Your task to perform on an android device: set the stopwatch Image 0: 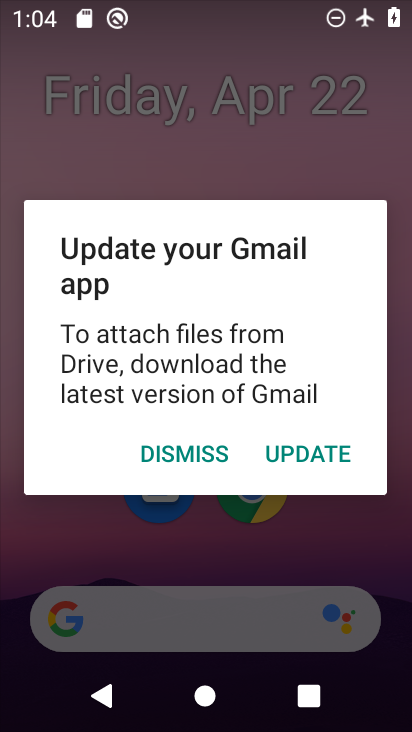
Step 0: press home button
Your task to perform on an android device: set the stopwatch Image 1: 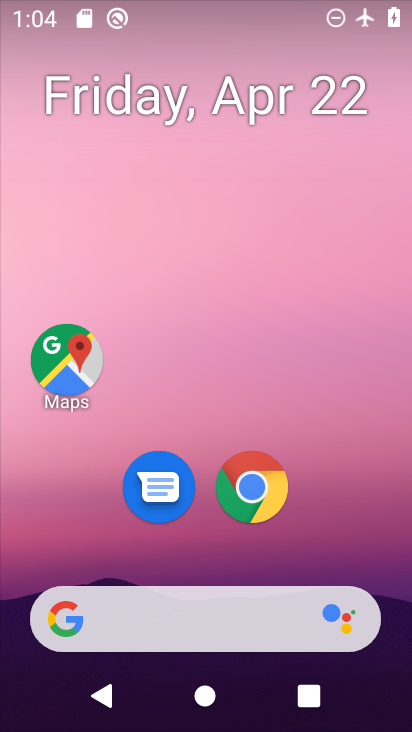
Step 1: drag from (239, 283) to (242, 198)
Your task to perform on an android device: set the stopwatch Image 2: 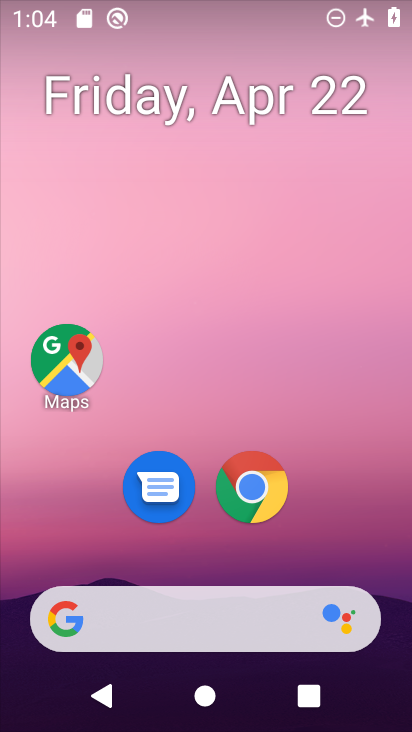
Step 2: drag from (217, 509) to (241, 237)
Your task to perform on an android device: set the stopwatch Image 3: 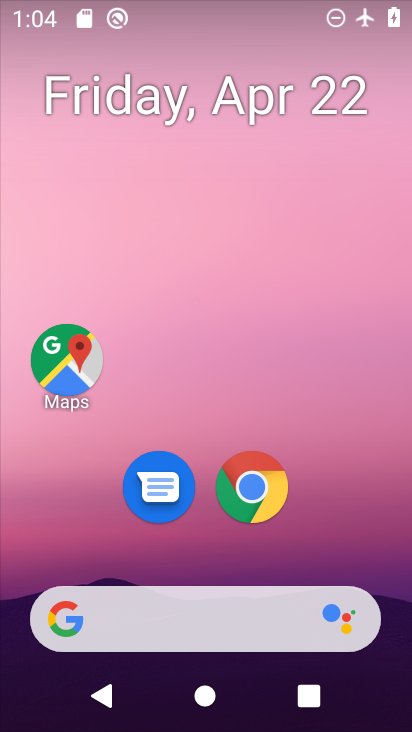
Step 3: drag from (244, 597) to (238, 275)
Your task to perform on an android device: set the stopwatch Image 4: 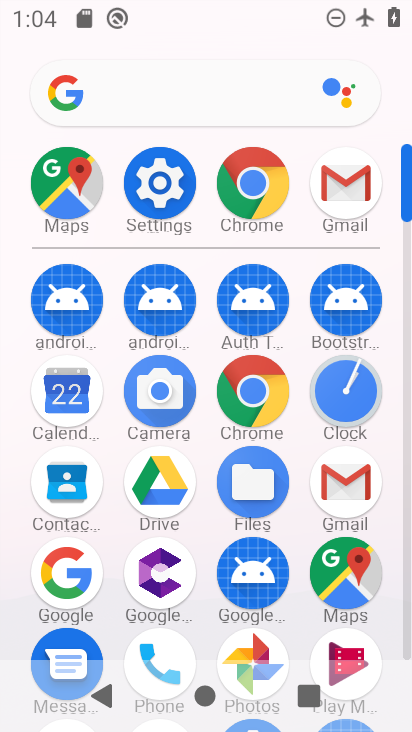
Step 4: click (341, 385)
Your task to perform on an android device: set the stopwatch Image 5: 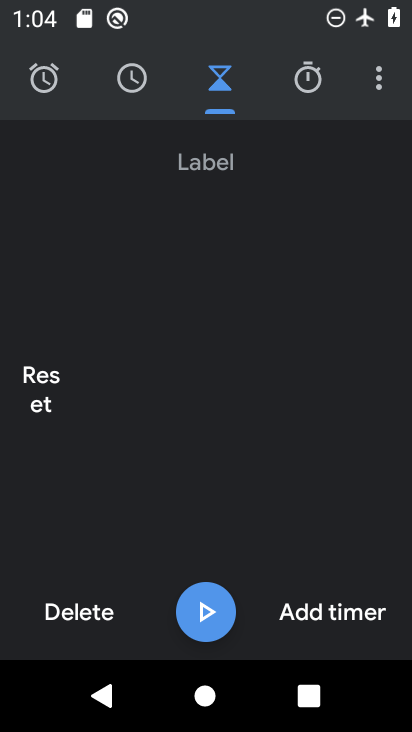
Step 5: click (208, 599)
Your task to perform on an android device: set the stopwatch Image 6: 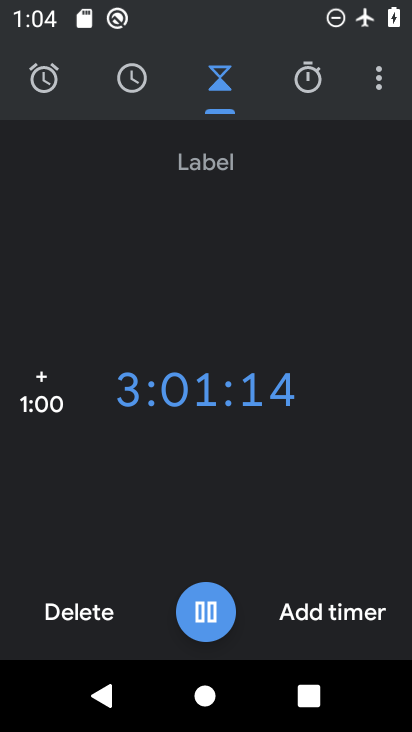
Step 6: click (296, 81)
Your task to perform on an android device: set the stopwatch Image 7: 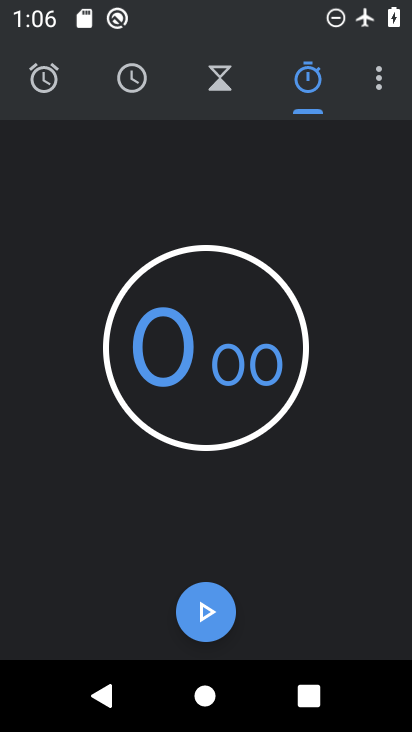
Step 7: task complete